Your task to perform on an android device: Go to privacy settings Image 0: 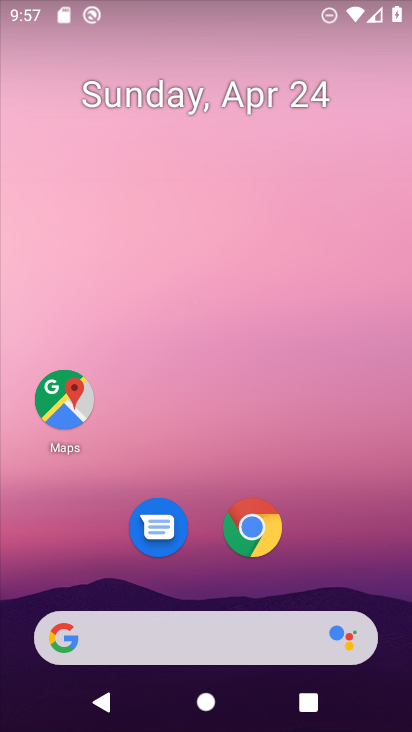
Step 0: drag from (390, 612) to (336, 84)
Your task to perform on an android device: Go to privacy settings Image 1: 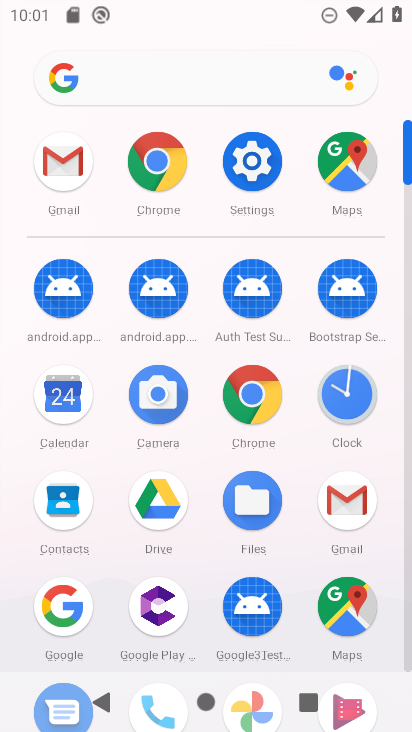
Step 1: click (250, 172)
Your task to perform on an android device: Go to privacy settings Image 2: 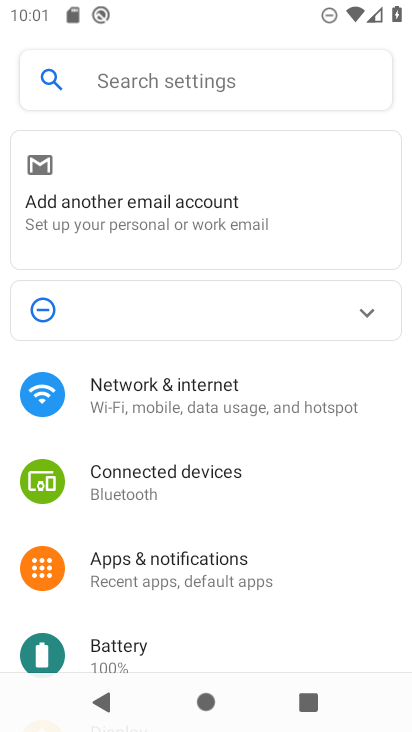
Step 2: drag from (187, 609) to (204, 84)
Your task to perform on an android device: Go to privacy settings Image 3: 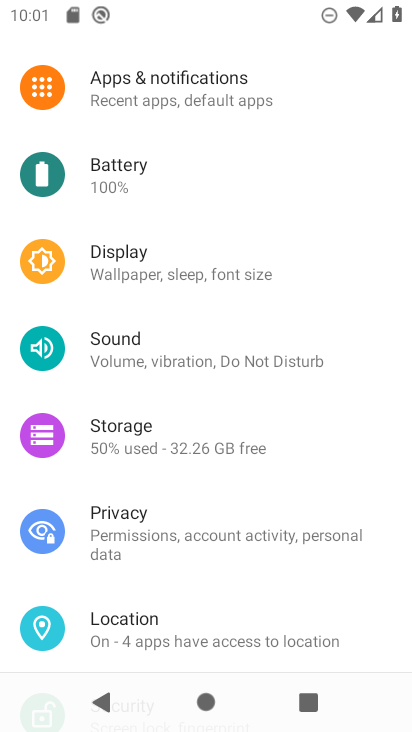
Step 3: click (136, 522)
Your task to perform on an android device: Go to privacy settings Image 4: 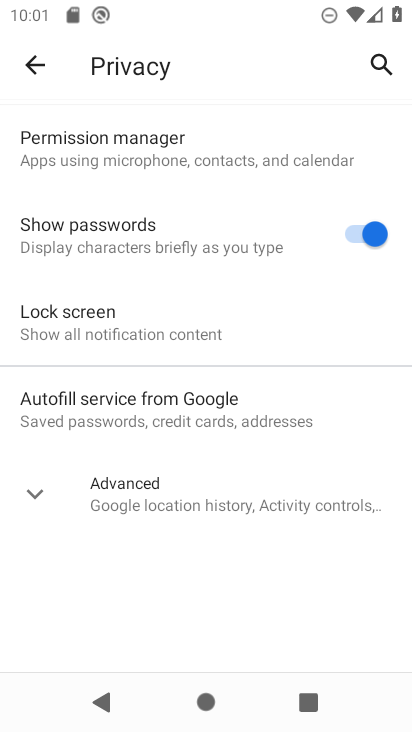
Step 4: task complete